Your task to perform on an android device: Clear the cart on bestbuy. Add "razer blackwidow" to the cart on bestbuy Image 0: 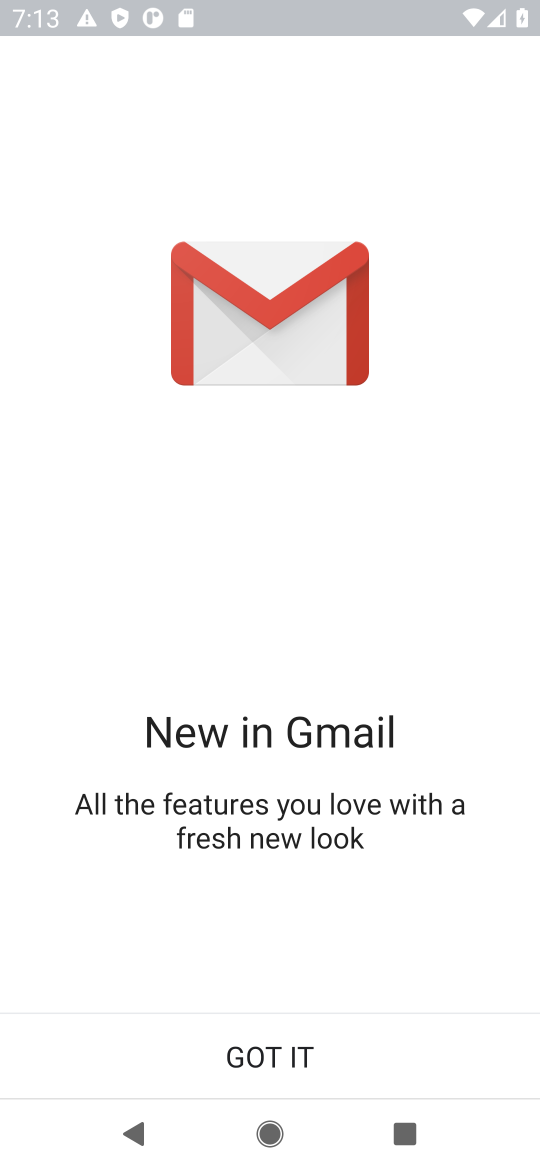
Step 0: press home button
Your task to perform on an android device: Clear the cart on bestbuy. Add "razer blackwidow" to the cart on bestbuy Image 1: 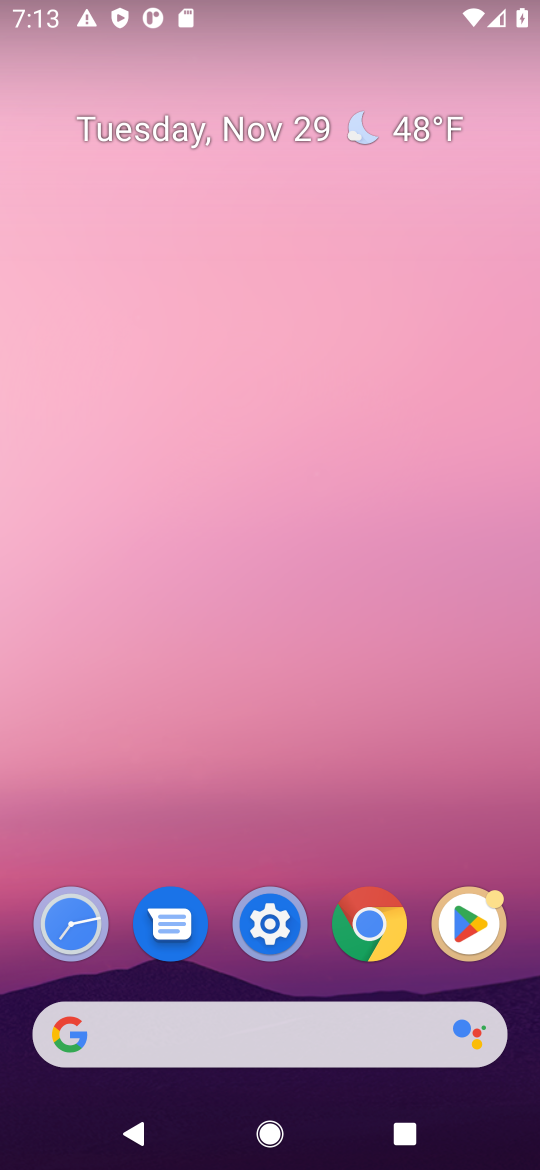
Step 1: click (217, 1047)
Your task to perform on an android device: Clear the cart on bestbuy. Add "razer blackwidow" to the cart on bestbuy Image 2: 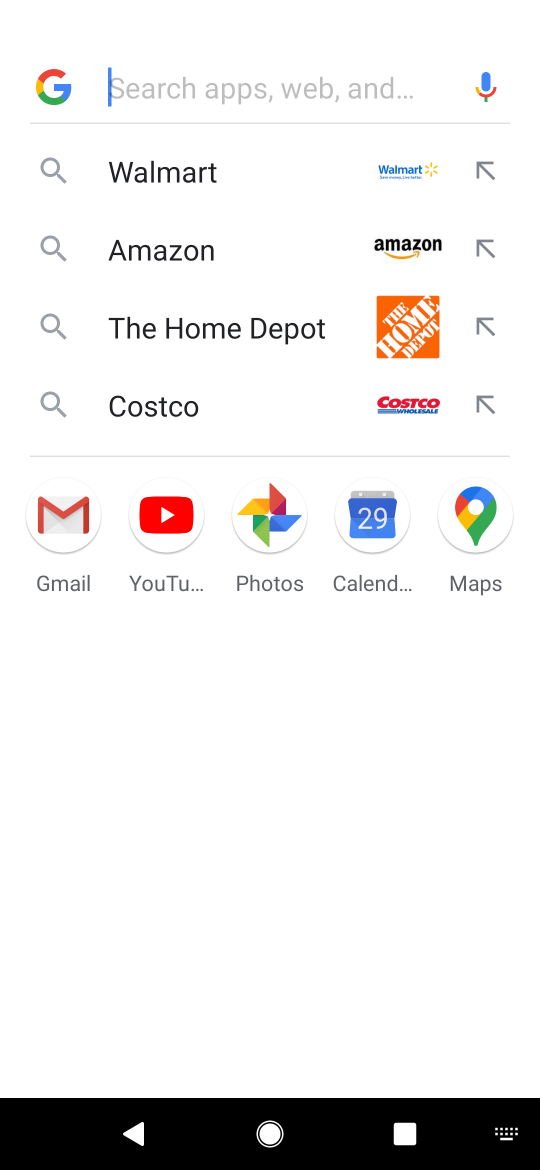
Step 2: type "bestbuy"
Your task to perform on an android device: Clear the cart on bestbuy. Add "razer blackwidow" to the cart on bestbuy Image 3: 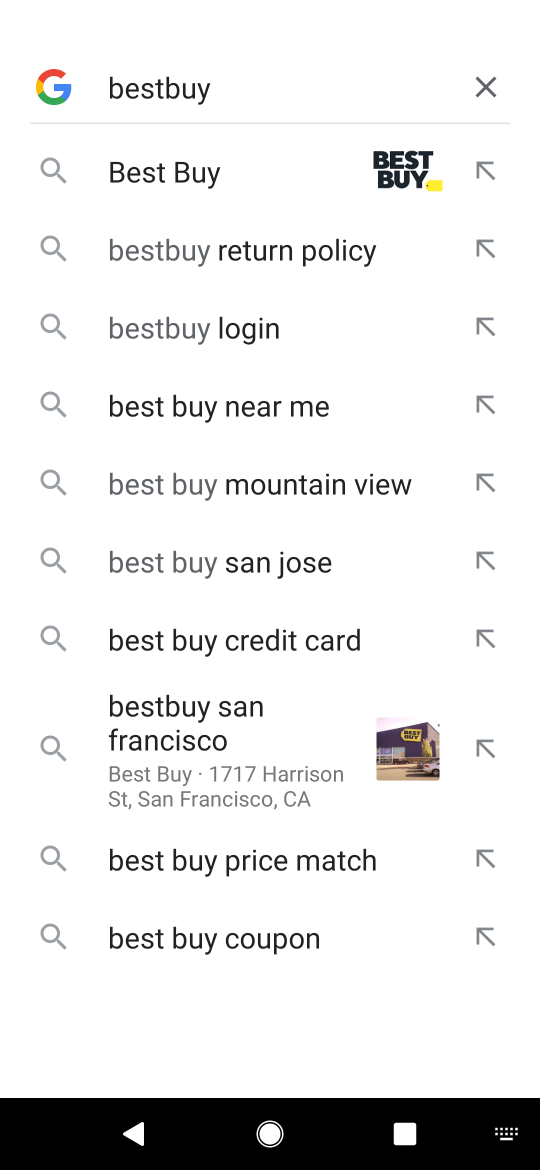
Step 3: click (180, 191)
Your task to perform on an android device: Clear the cart on bestbuy. Add "razer blackwidow" to the cart on bestbuy Image 4: 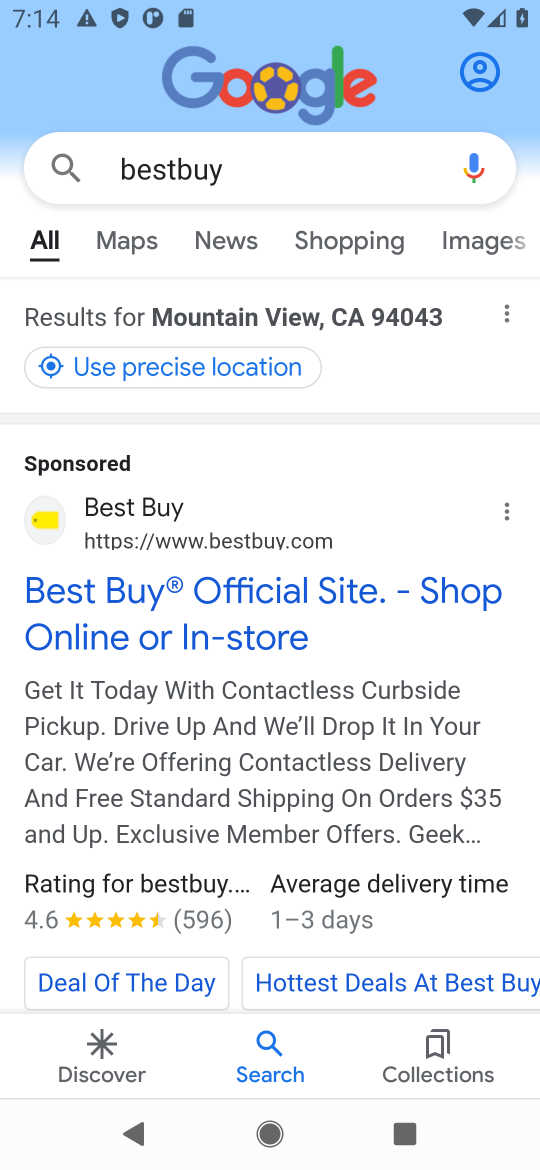
Step 4: click (196, 573)
Your task to perform on an android device: Clear the cart on bestbuy. Add "razer blackwidow" to the cart on bestbuy Image 5: 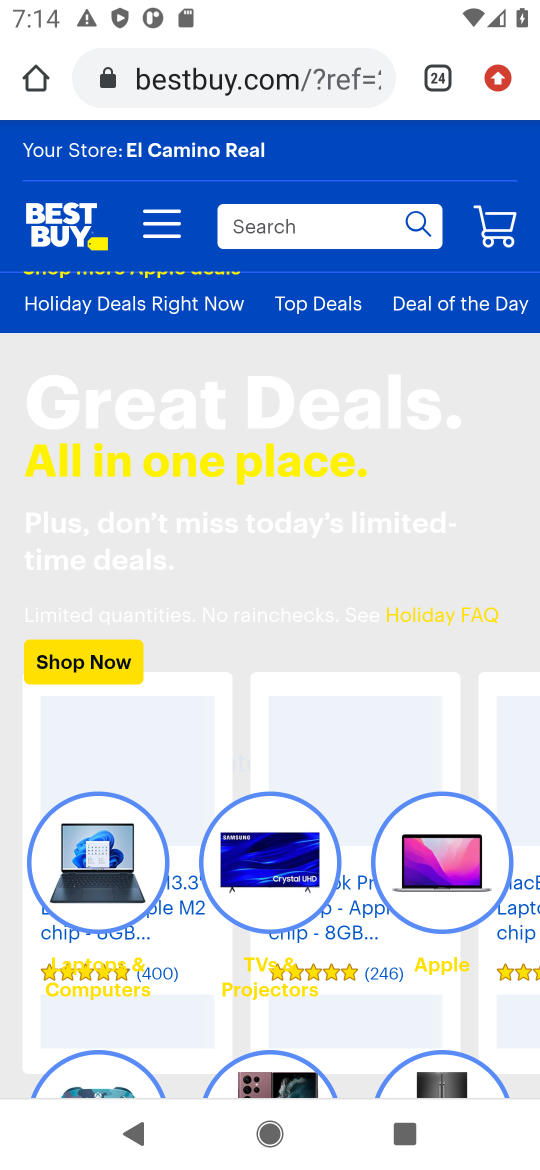
Step 5: click (280, 225)
Your task to perform on an android device: Clear the cart on bestbuy. Add "razer blackwidow" to the cart on bestbuy Image 6: 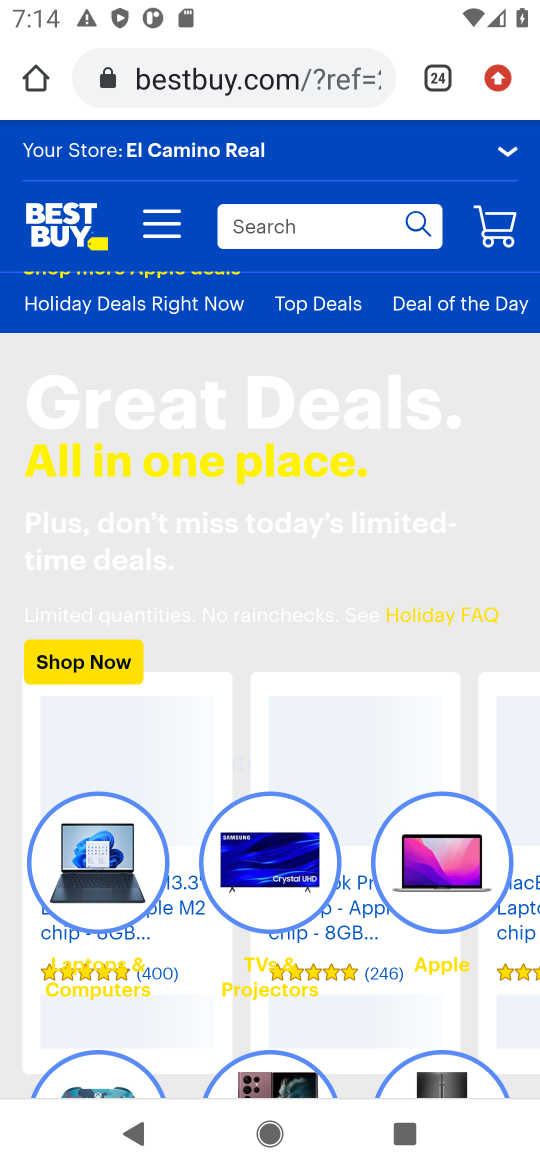
Step 6: type "razer blackwindow"
Your task to perform on an android device: Clear the cart on bestbuy. Add "razer blackwidow" to the cart on bestbuy Image 7: 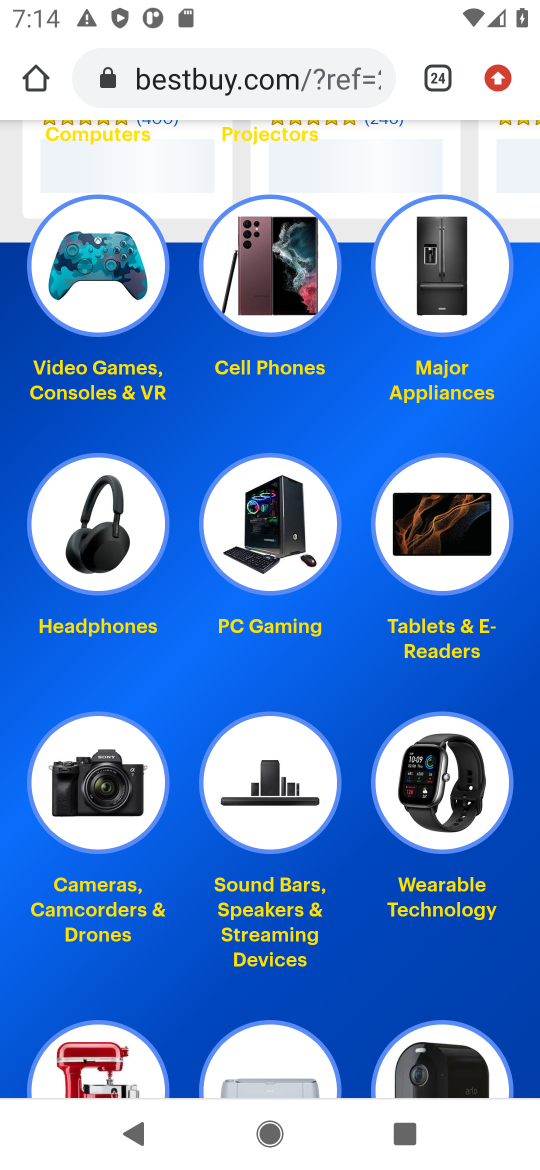
Step 7: task complete